Your task to perform on an android device: change the upload size in google photos Image 0: 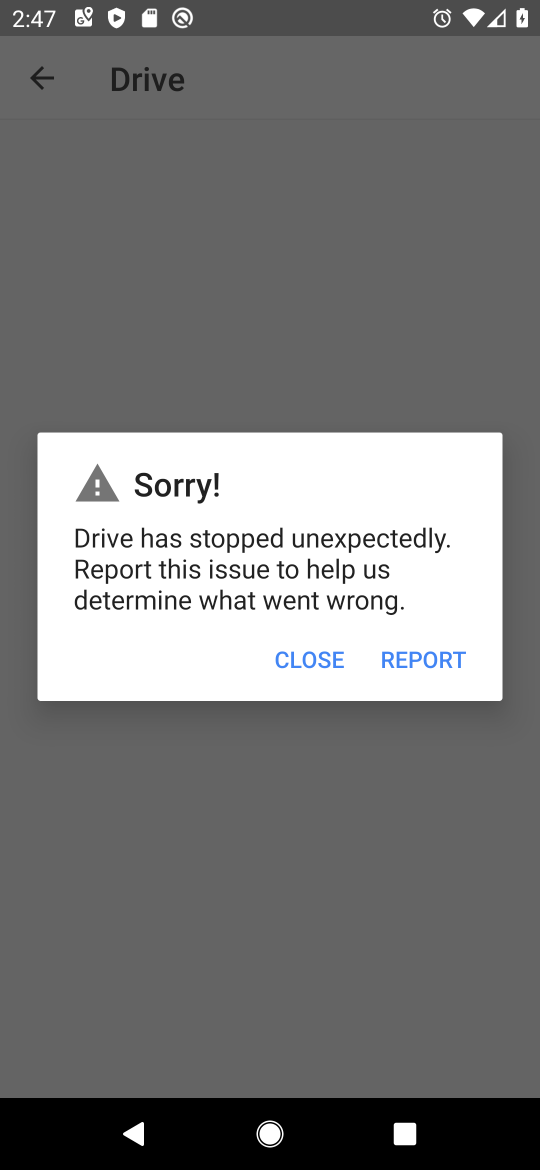
Step 0: press home button
Your task to perform on an android device: change the upload size in google photos Image 1: 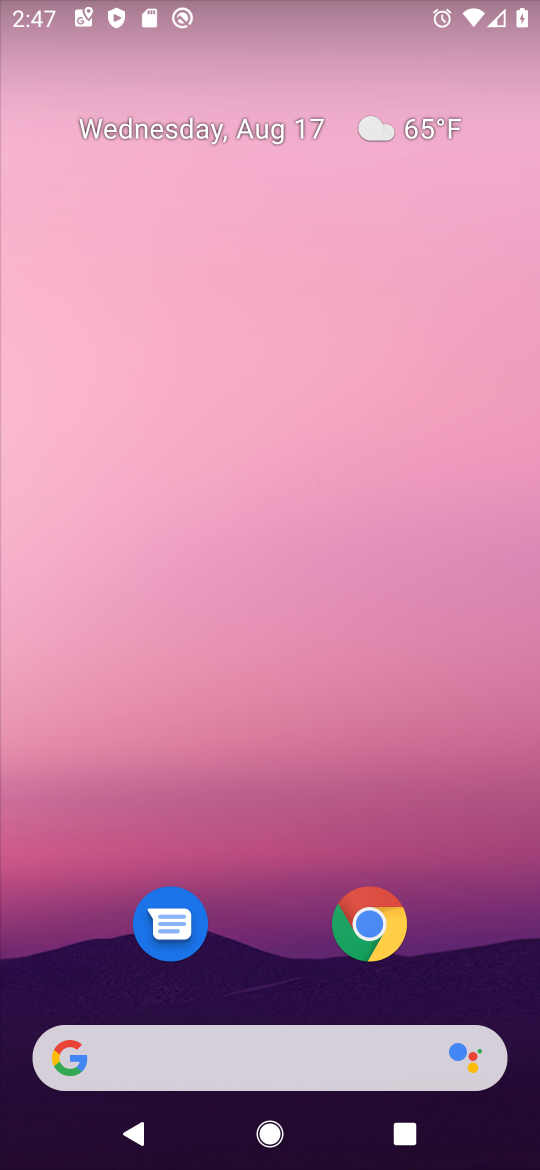
Step 1: drag from (230, 1063) to (266, 37)
Your task to perform on an android device: change the upload size in google photos Image 2: 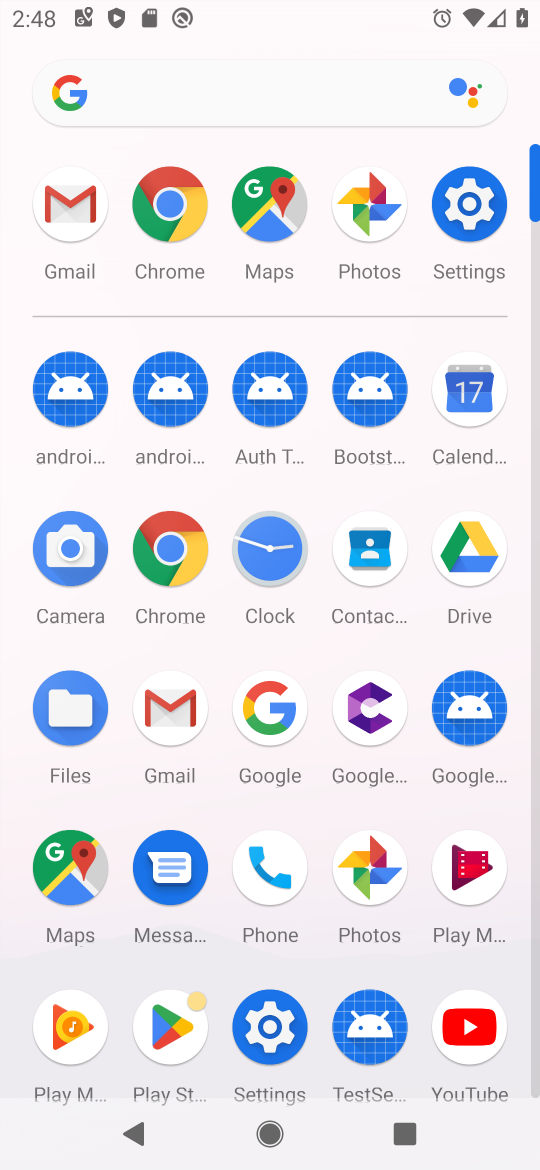
Step 2: click (370, 203)
Your task to perform on an android device: change the upload size in google photos Image 3: 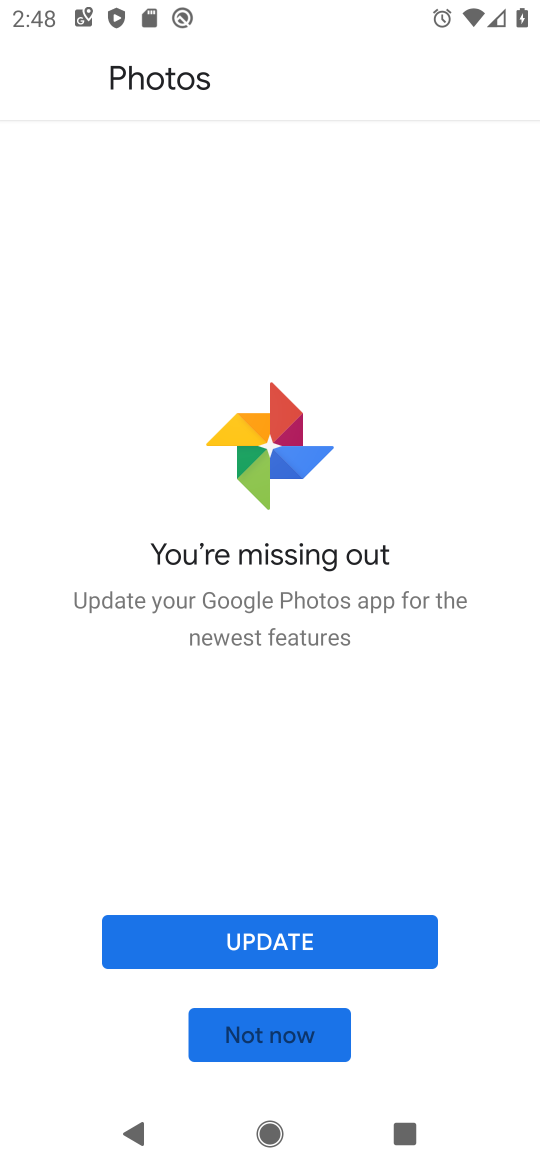
Step 3: click (273, 936)
Your task to perform on an android device: change the upload size in google photos Image 4: 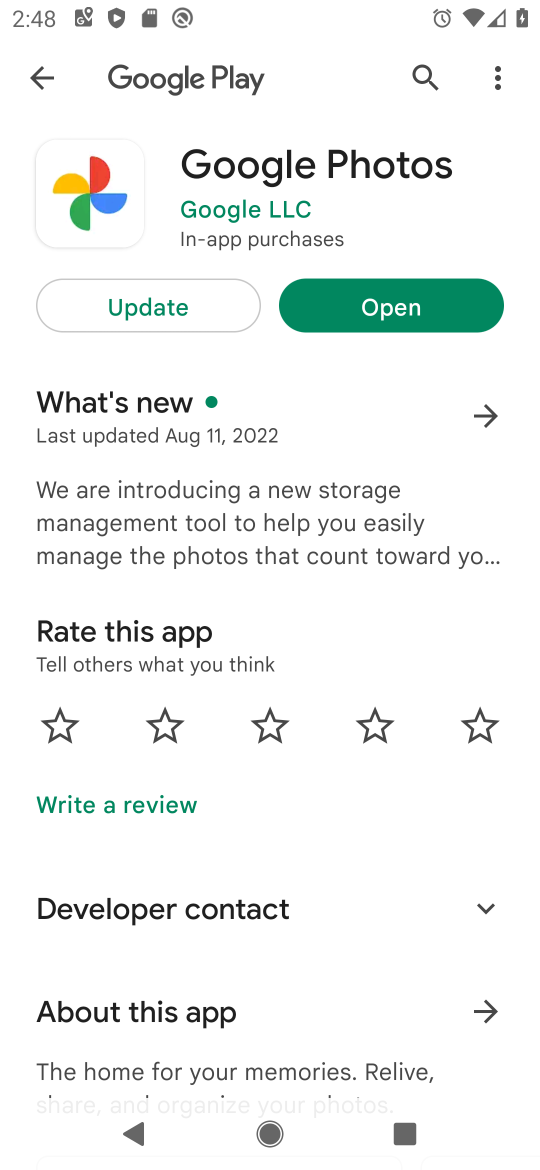
Step 4: click (155, 312)
Your task to perform on an android device: change the upload size in google photos Image 5: 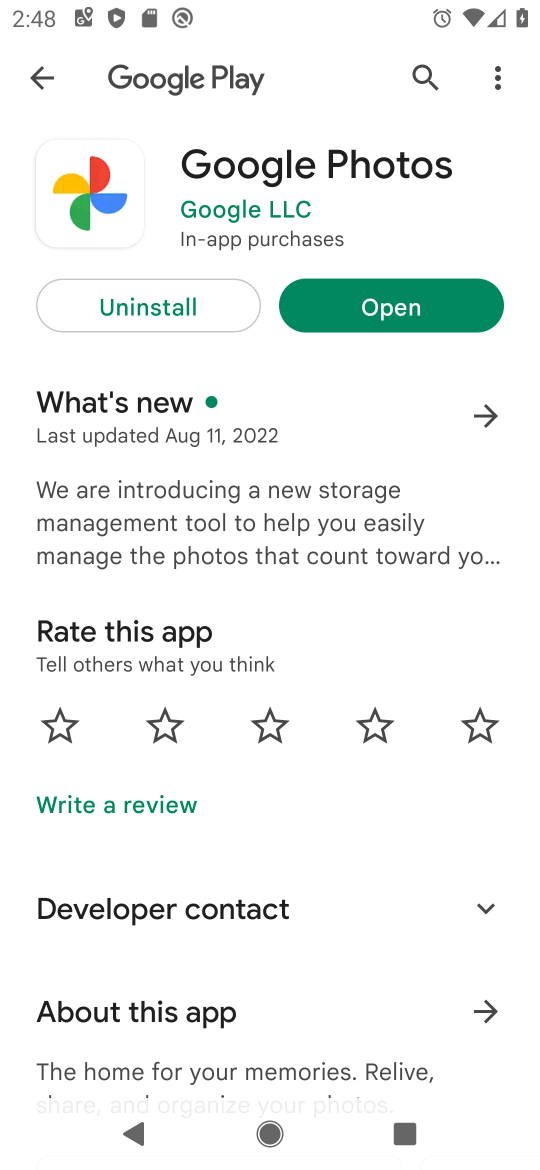
Step 5: click (412, 329)
Your task to perform on an android device: change the upload size in google photos Image 6: 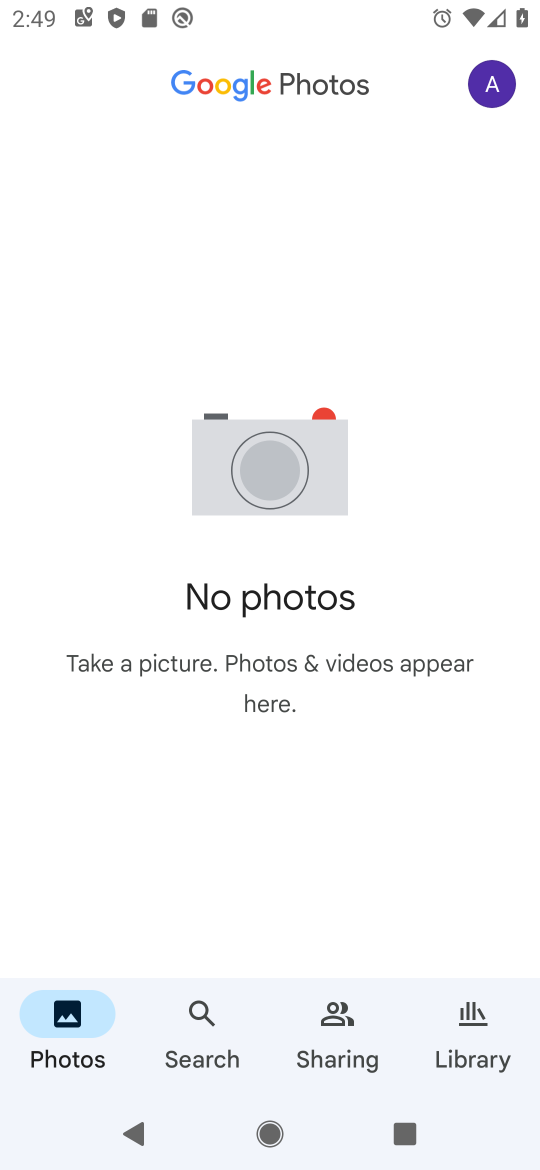
Step 6: click (498, 88)
Your task to perform on an android device: change the upload size in google photos Image 7: 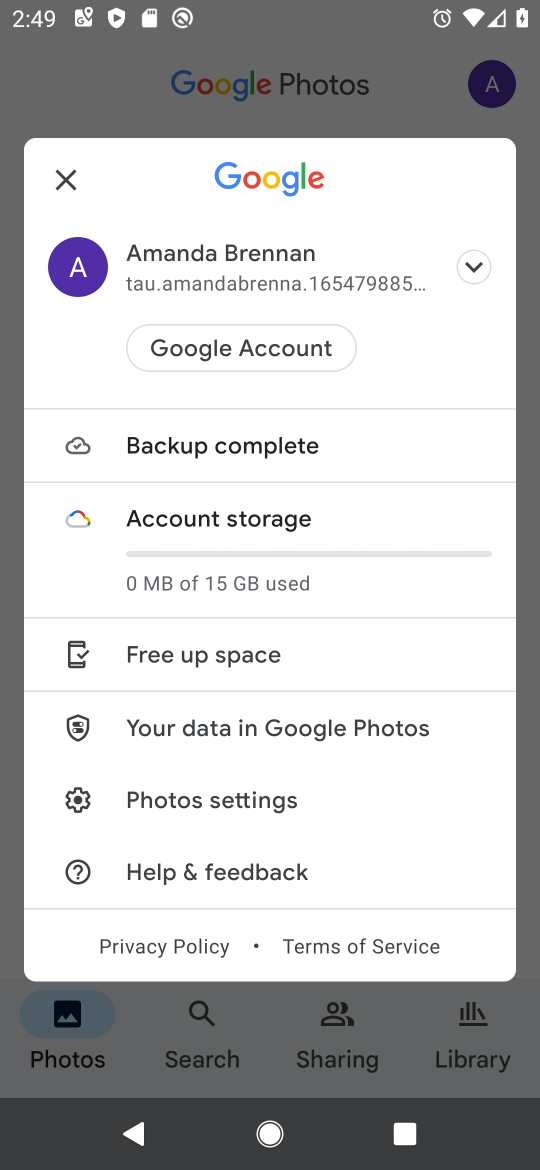
Step 7: click (245, 792)
Your task to perform on an android device: change the upload size in google photos Image 8: 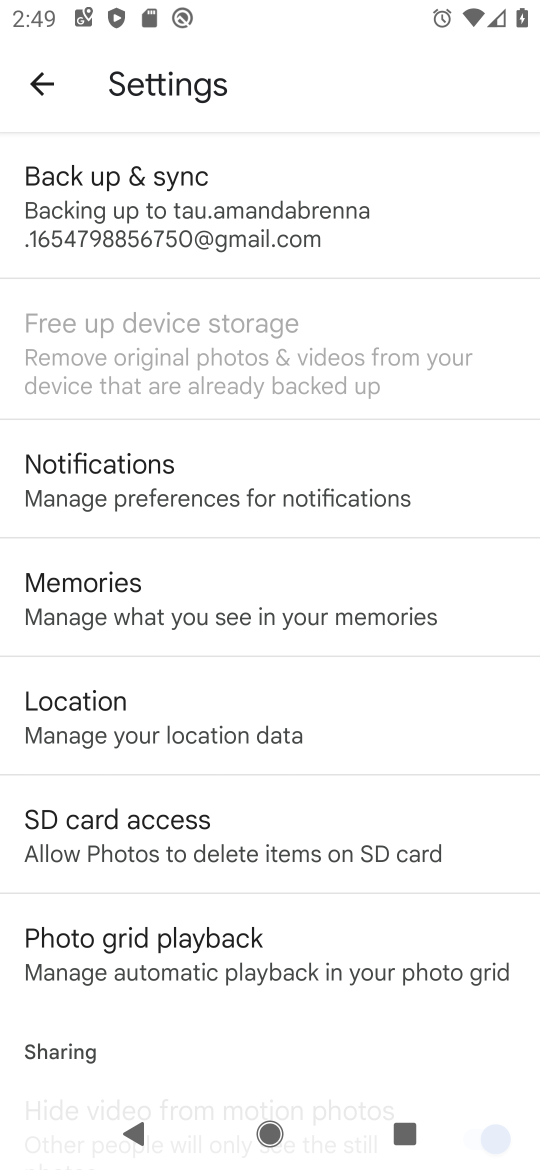
Step 8: click (222, 219)
Your task to perform on an android device: change the upload size in google photos Image 9: 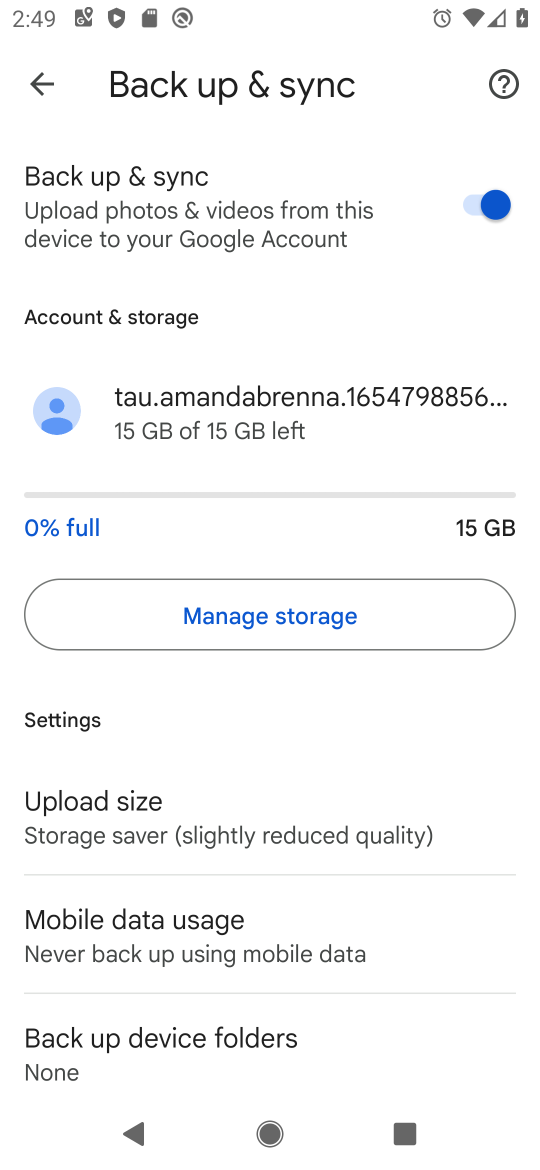
Step 9: click (199, 841)
Your task to perform on an android device: change the upload size in google photos Image 10: 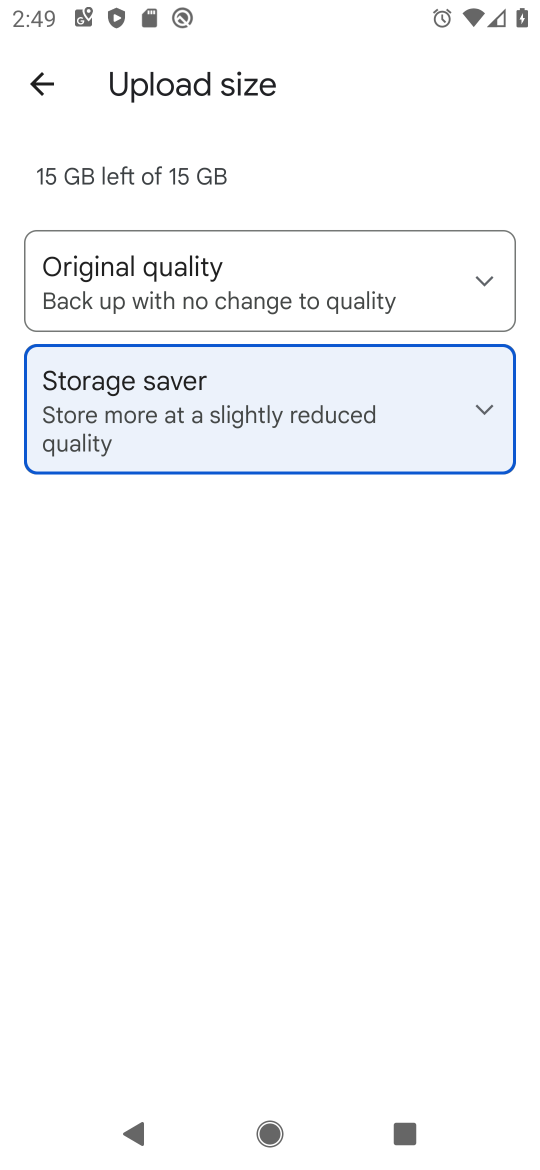
Step 10: click (169, 291)
Your task to perform on an android device: change the upload size in google photos Image 11: 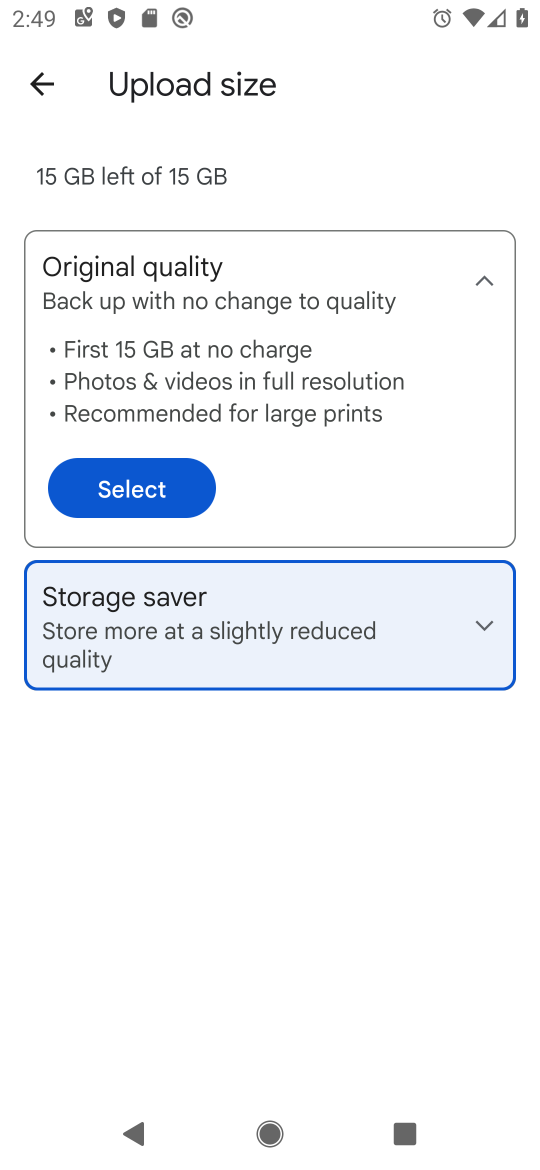
Step 11: click (168, 486)
Your task to perform on an android device: change the upload size in google photos Image 12: 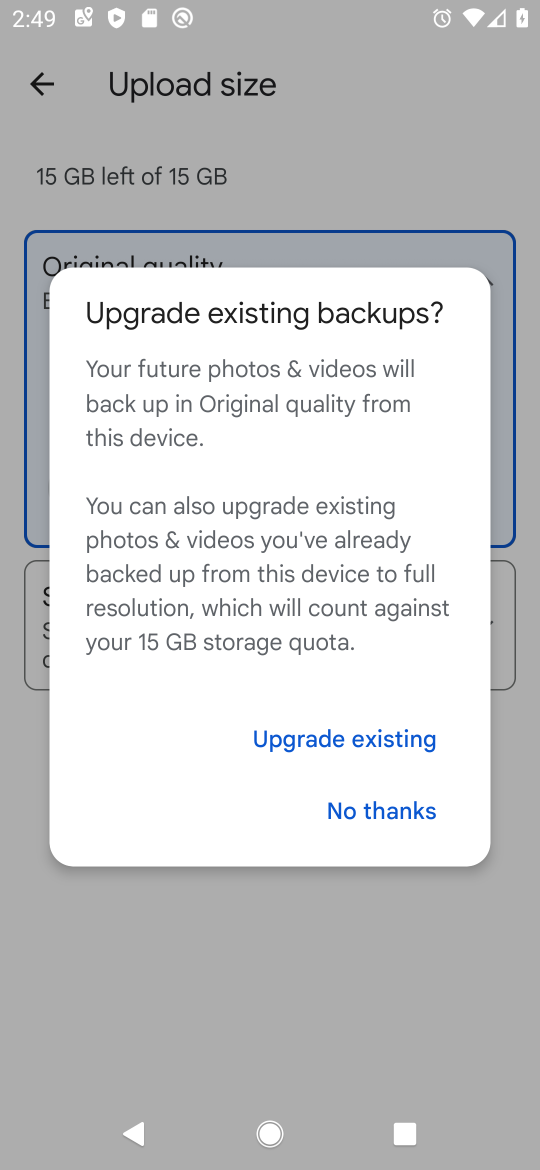
Step 12: click (402, 820)
Your task to perform on an android device: change the upload size in google photos Image 13: 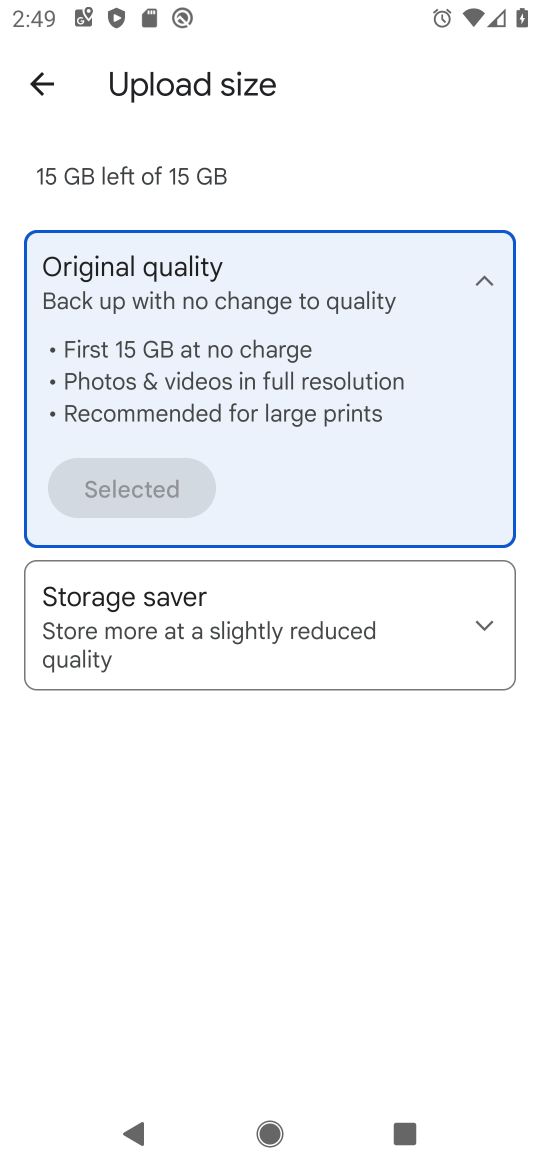
Step 13: task complete